Your task to perform on an android device: What's on my calendar tomorrow? Image 0: 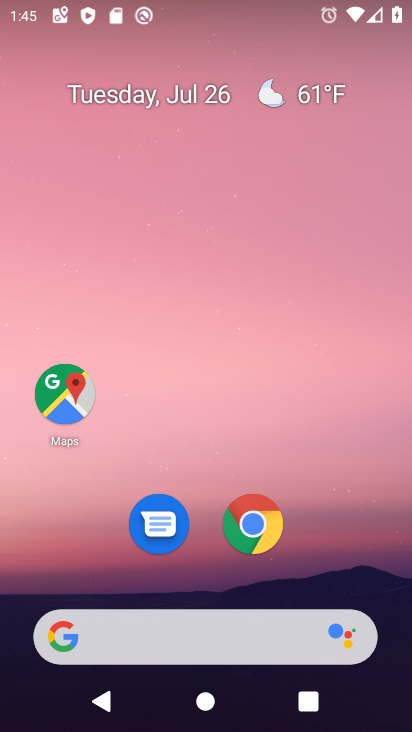
Step 0: press home button
Your task to perform on an android device: What's on my calendar tomorrow? Image 1: 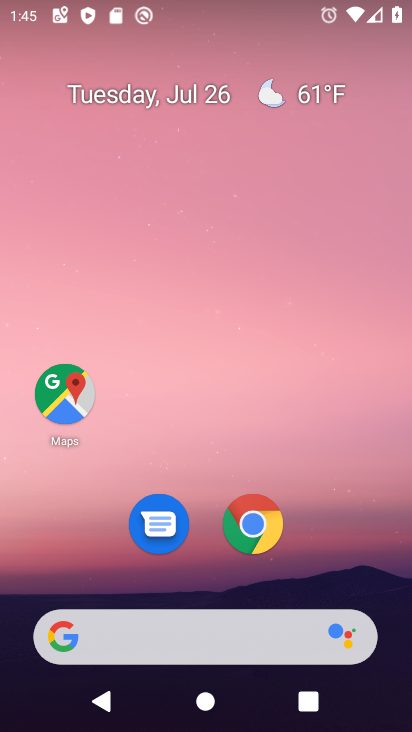
Step 1: drag from (188, 602) to (298, 100)
Your task to perform on an android device: What's on my calendar tomorrow? Image 2: 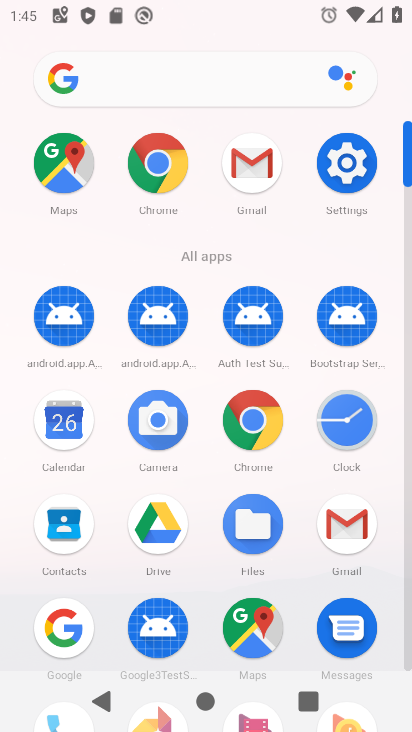
Step 2: click (58, 427)
Your task to perform on an android device: What's on my calendar tomorrow? Image 3: 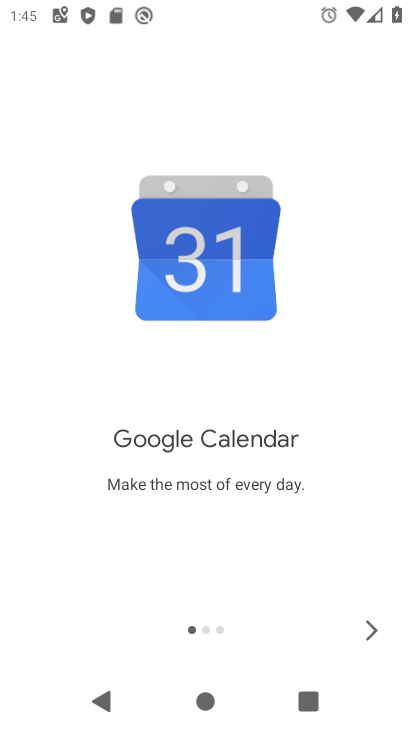
Step 3: click (376, 625)
Your task to perform on an android device: What's on my calendar tomorrow? Image 4: 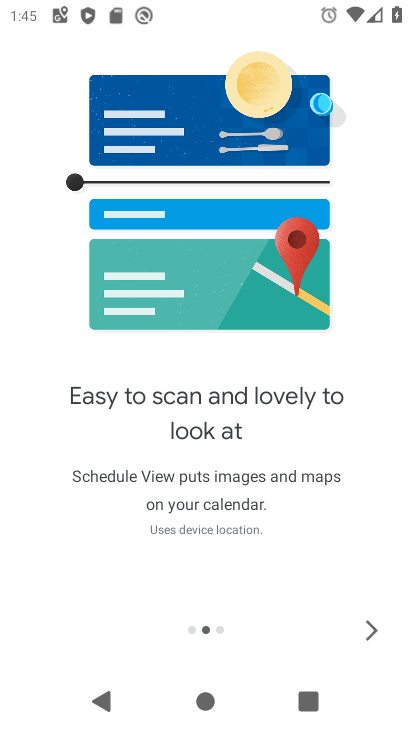
Step 4: click (376, 625)
Your task to perform on an android device: What's on my calendar tomorrow? Image 5: 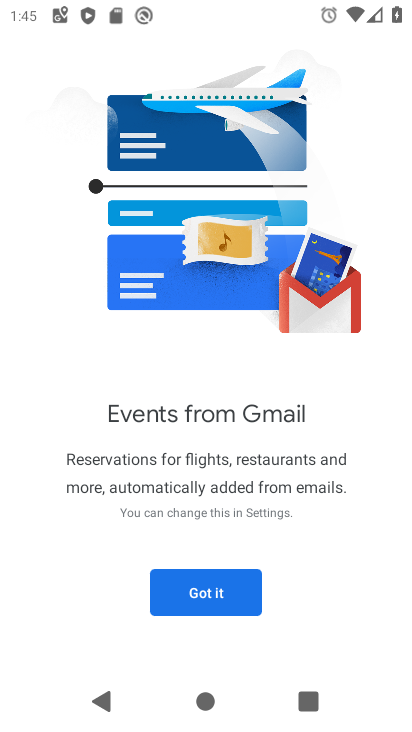
Step 5: click (214, 593)
Your task to perform on an android device: What's on my calendar tomorrow? Image 6: 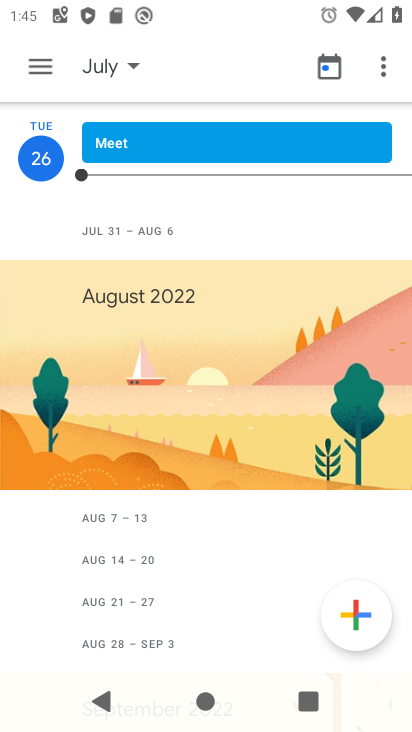
Step 6: click (99, 62)
Your task to perform on an android device: What's on my calendar tomorrow? Image 7: 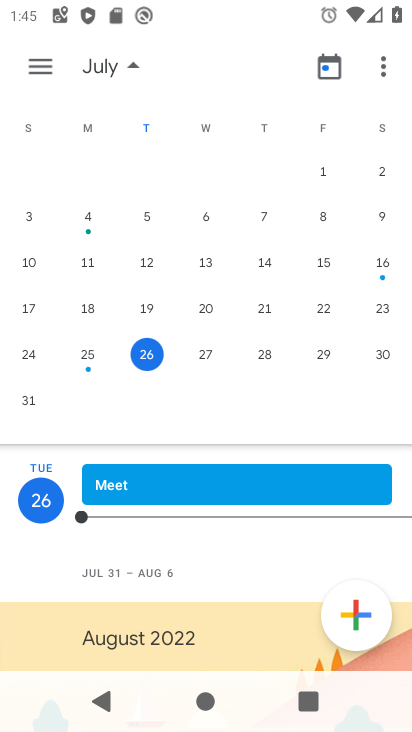
Step 7: click (212, 350)
Your task to perform on an android device: What's on my calendar tomorrow? Image 8: 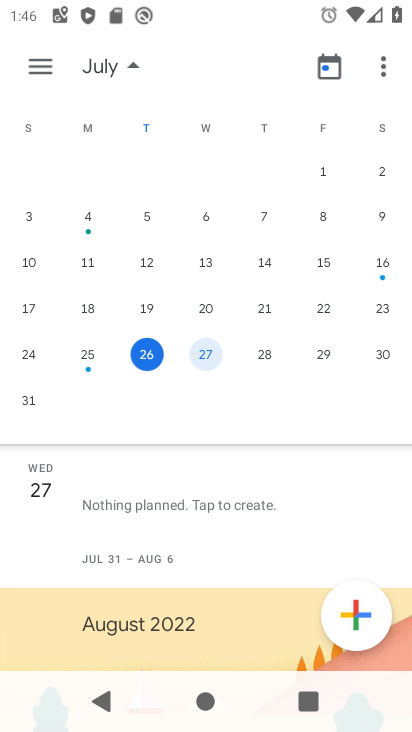
Step 8: click (45, 68)
Your task to perform on an android device: What's on my calendar tomorrow? Image 9: 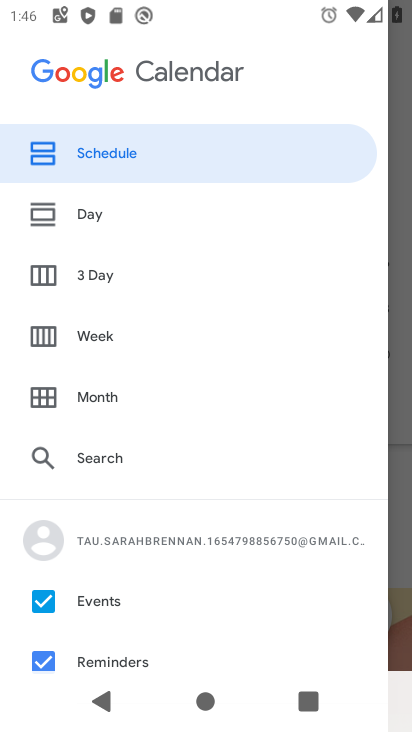
Step 9: click (75, 210)
Your task to perform on an android device: What's on my calendar tomorrow? Image 10: 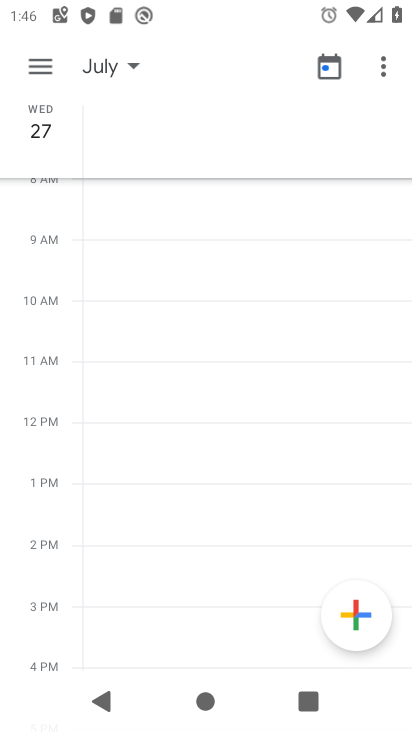
Step 10: click (39, 68)
Your task to perform on an android device: What's on my calendar tomorrow? Image 11: 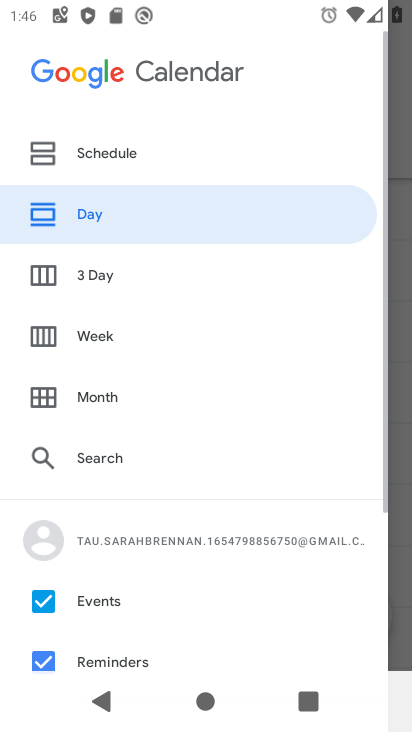
Step 11: click (100, 140)
Your task to perform on an android device: What's on my calendar tomorrow? Image 12: 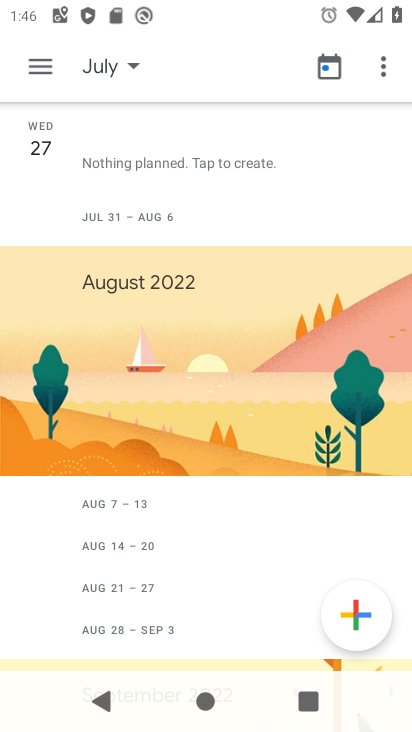
Step 12: task complete